Your task to perform on an android device: Open calendar and show me the fourth week of next month Image 0: 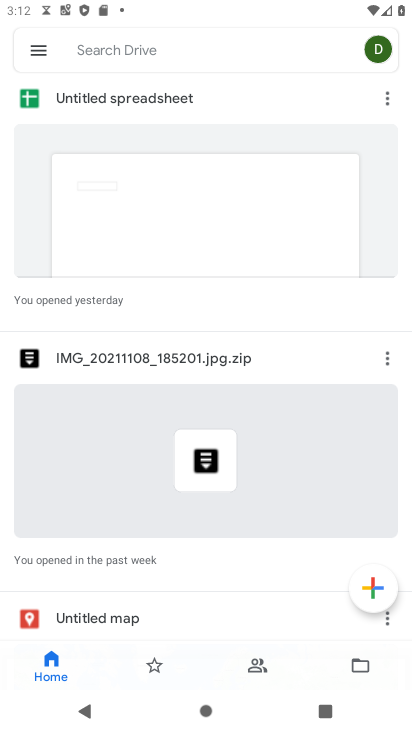
Step 0: press home button
Your task to perform on an android device: Open calendar and show me the fourth week of next month Image 1: 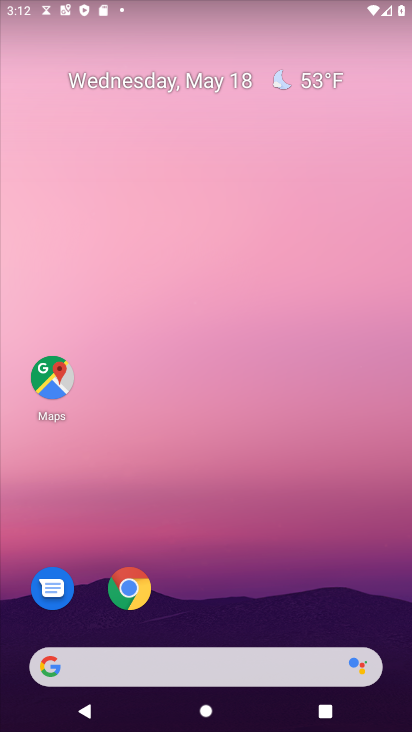
Step 1: drag from (298, 545) to (239, 43)
Your task to perform on an android device: Open calendar and show me the fourth week of next month Image 2: 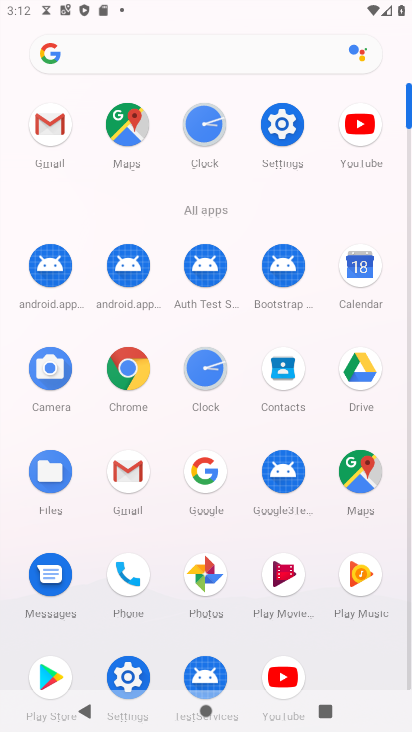
Step 2: click (377, 268)
Your task to perform on an android device: Open calendar and show me the fourth week of next month Image 3: 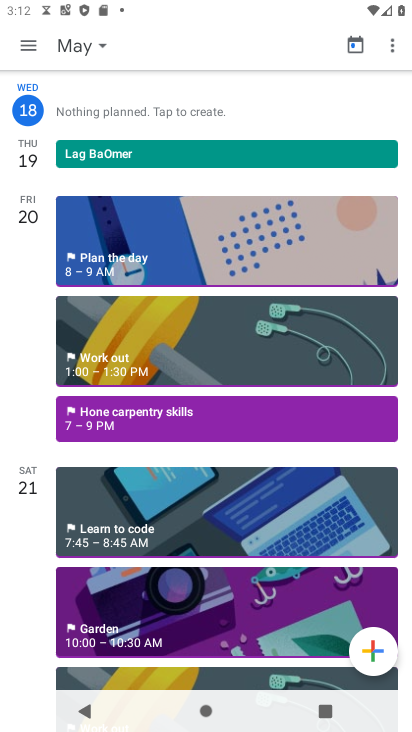
Step 3: click (99, 31)
Your task to perform on an android device: Open calendar and show me the fourth week of next month Image 4: 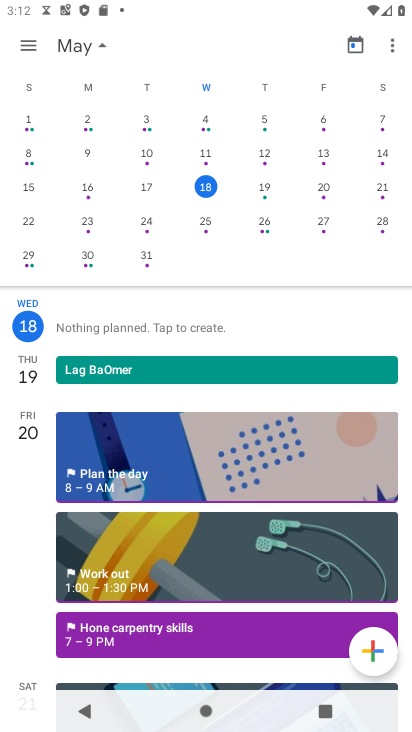
Step 4: drag from (349, 158) to (1, 203)
Your task to perform on an android device: Open calendar and show me the fourth week of next month Image 5: 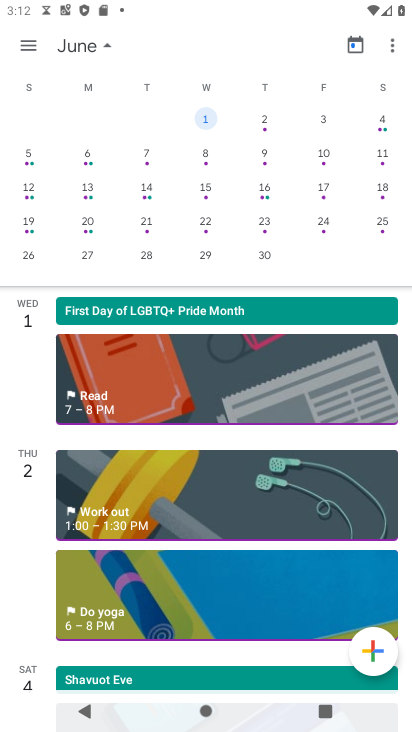
Step 5: click (211, 221)
Your task to perform on an android device: Open calendar and show me the fourth week of next month Image 6: 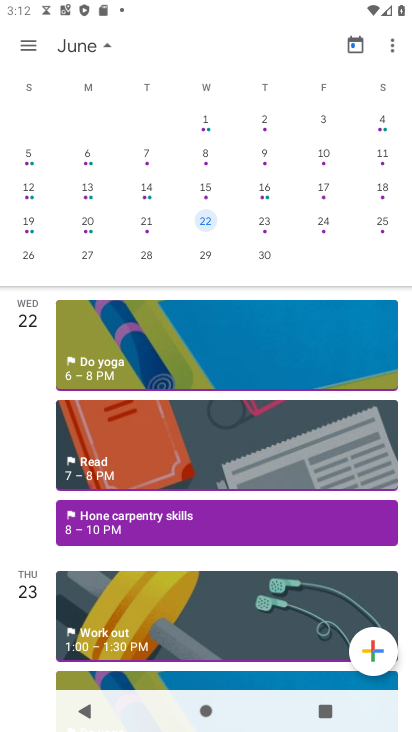
Step 6: task complete